Your task to perform on an android device: empty trash in google photos Image 0: 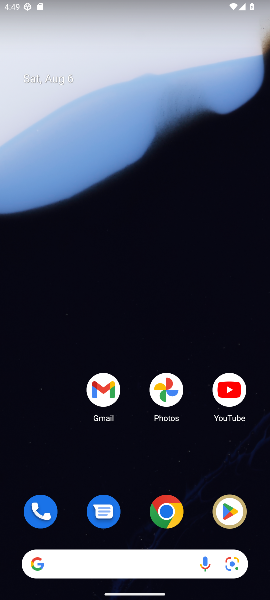
Step 0: drag from (130, 459) to (203, 30)
Your task to perform on an android device: empty trash in google photos Image 1: 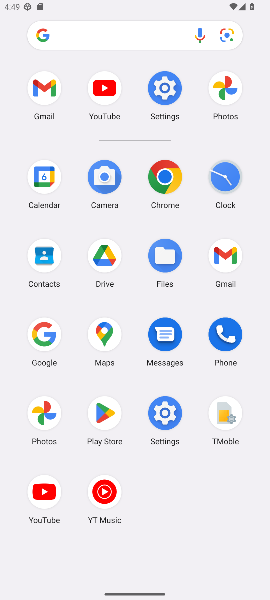
Step 1: click (38, 422)
Your task to perform on an android device: empty trash in google photos Image 2: 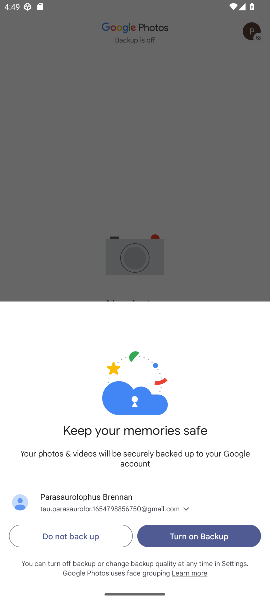
Step 2: click (72, 534)
Your task to perform on an android device: empty trash in google photos Image 3: 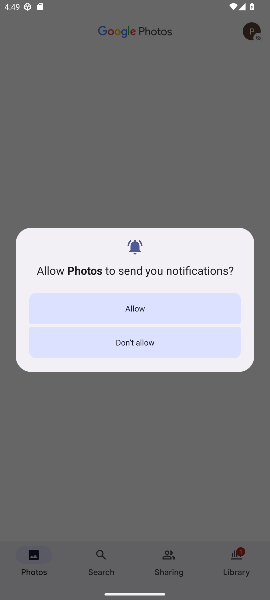
Step 3: click (154, 311)
Your task to perform on an android device: empty trash in google photos Image 4: 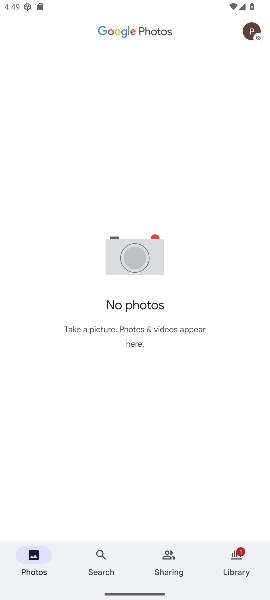
Step 4: click (245, 558)
Your task to perform on an android device: empty trash in google photos Image 5: 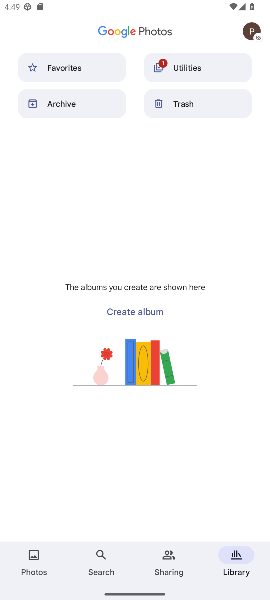
Step 5: click (192, 103)
Your task to perform on an android device: empty trash in google photos Image 6: 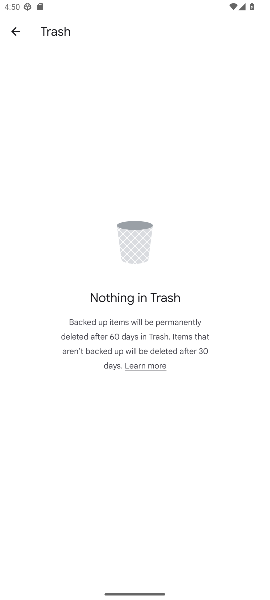
Step 6: task complete